Your task to perform on an android device: Add "corsair k70" to the cart on amazon.com Image 0: 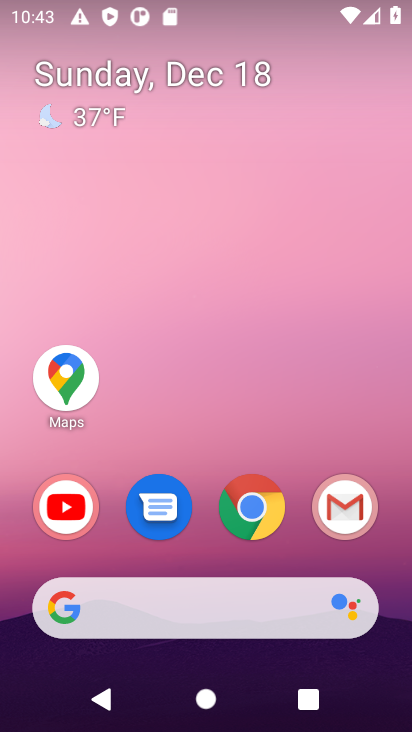
Step 0: click (250, 521)
Your task to perform on an android device: Add "corsair k70" to the cart on amazon.com Image 1: 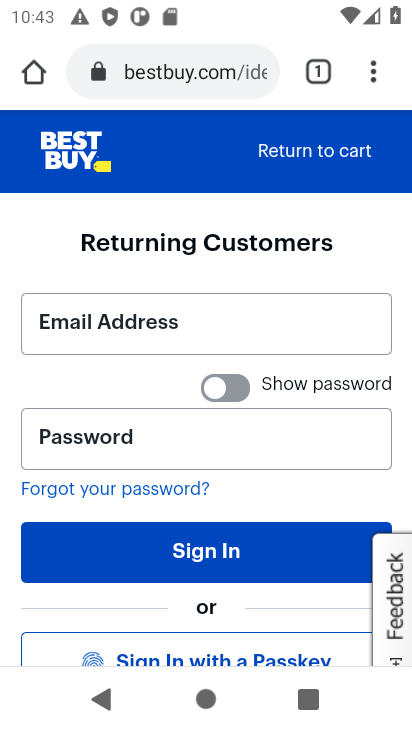
Step 1: click (165, 72)
Your task to perform on an android device: Add "corsair k70" to the cart on amazon.com Image 2: 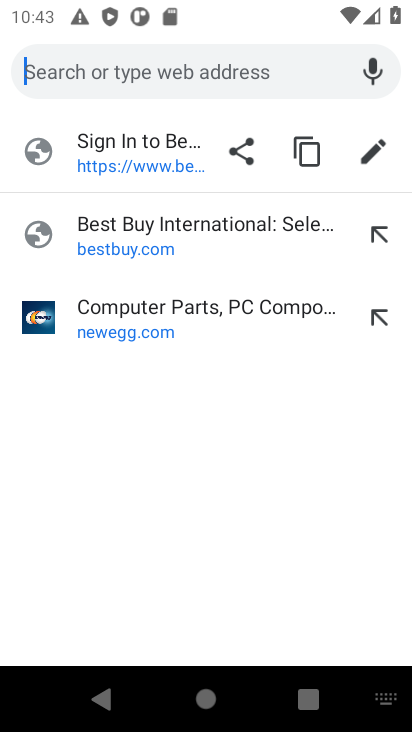
Step 2: type "amazon.com "
Your task to perform on an android device: Add "corsair k70" to the cart on amazon.com Image 3: 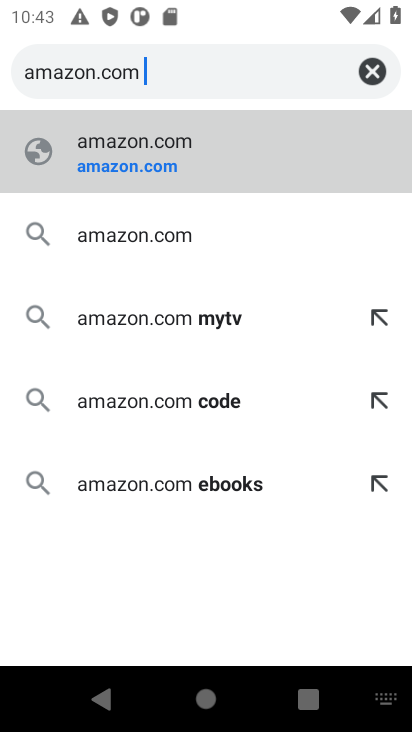
Step 3: click (131, 173)
Your task to perform on an android device: Add "corsair k70" to the cart on amazon.com Image 4: 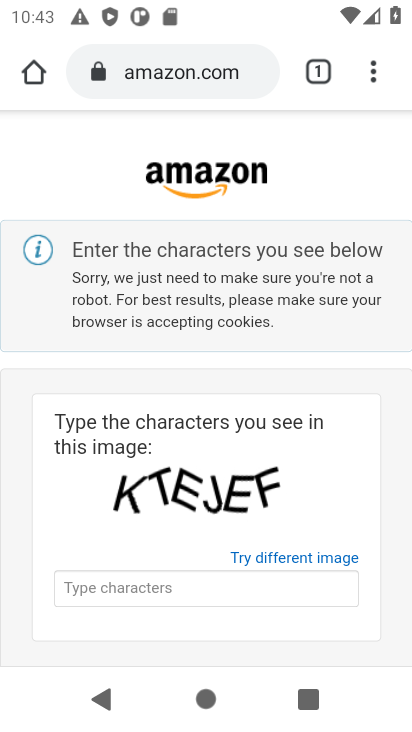
Step 4: click (130, 588)
Your task to perform on an android device: Add "corsair k70" to the cart on amazon.com Image 5: 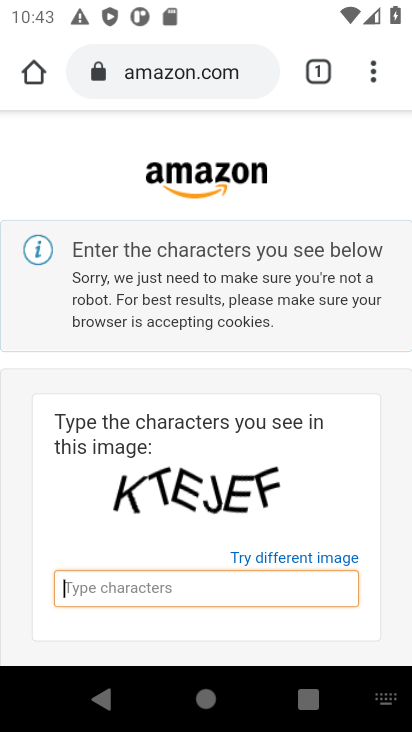
Step 5: type "KTEJEF"
Your task to perform on an android device: Add "corsair k70" to the cart on amazon.com Image 6: 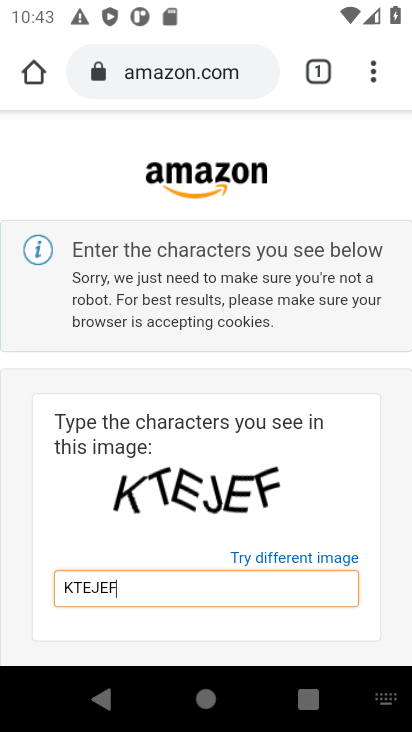
Step 6: drag from (219, 584) to (228, 322)
Your task to perform on an android device: Add "corsair k70" to the cart on amazon.com Image 7: 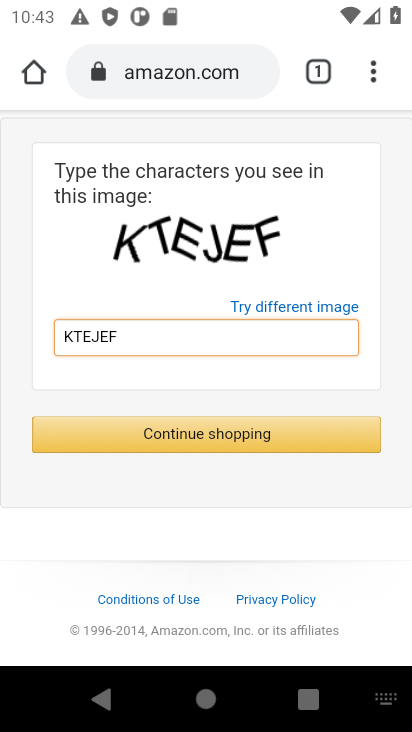
Step 7: click (207, 440)
Your task to perform on an android device: Add "corsair k70" to the cart on amazon.com Image 8: 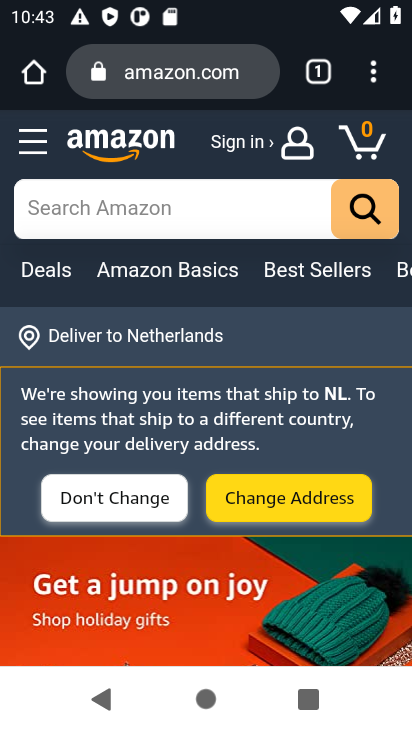
Step 8: click (71, 213)
Your task to perform on an android device: Add "corsair k70" to the cart on amazon.com Image 9: 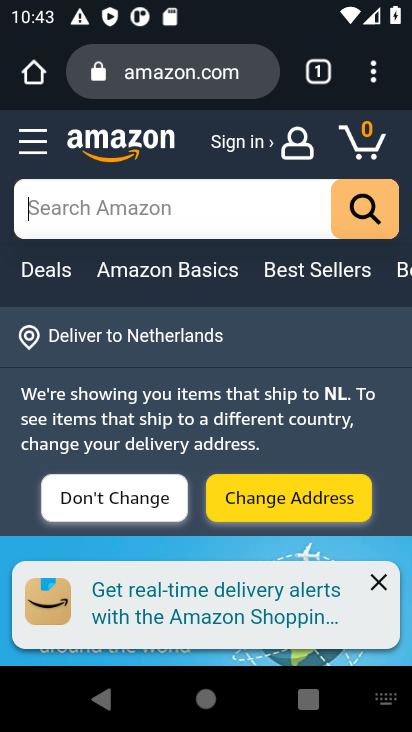
Step 9: type "corsair k70"
Your task to perform on an android device: Add "corsair k70" to the cart on amazon.com Image 10: 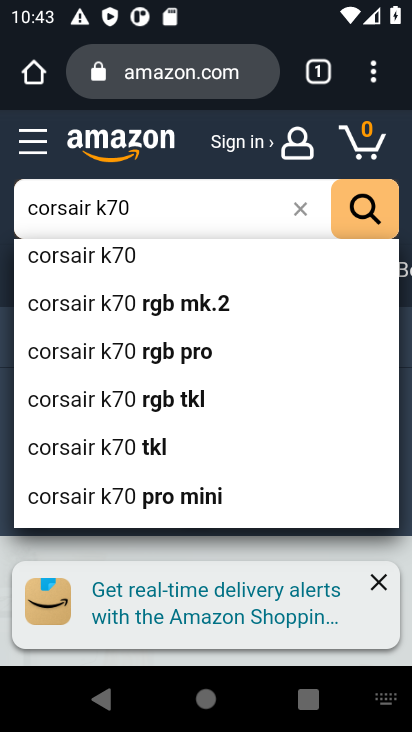
Step 10: click (78, 261)
Your task to perform on an android device: Add "corsair k70" to the cart on amazon.com Image 11: 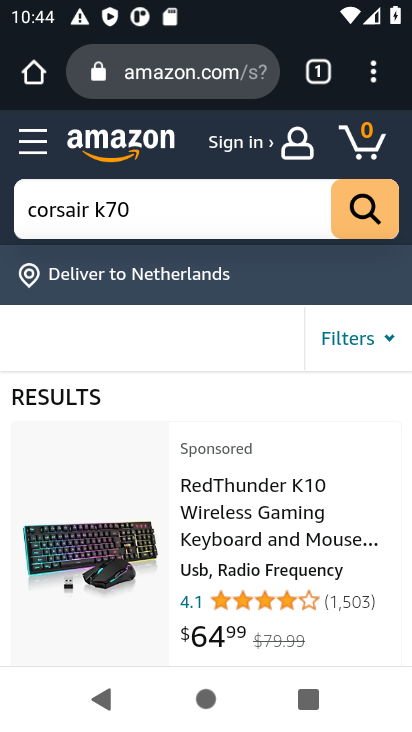
Step 11: drag from (206, 515) to (235, 367)
Your task to perform on an android device: Add "corsair k70" to the cart on amazon.com Image 12: 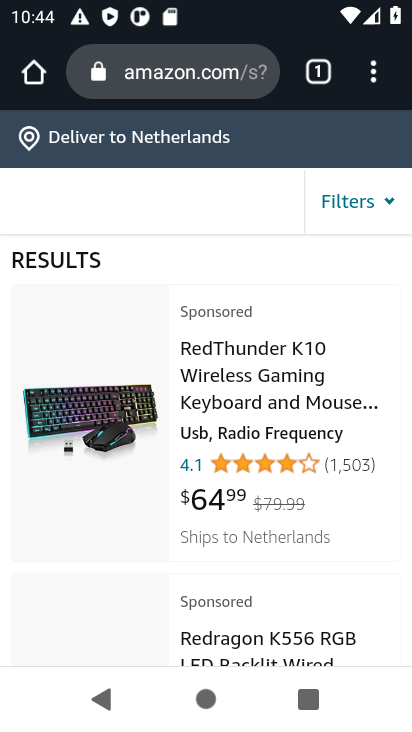
Step 12: drag from (184, 538) to (200, 293)
Your task to perform on an android device: Add "corsair k70" to the cart on amazon.com Image 13: 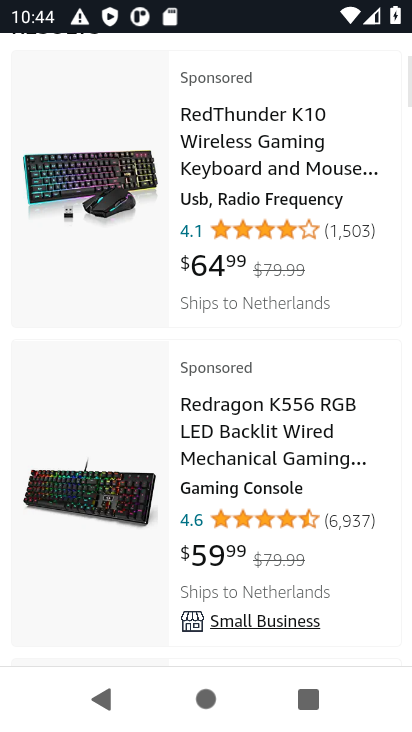
Step 13: drag from (190, 544) to (190, 258)
Your task to perform on an android device: Add "corsair k70" to the cart on amazon.com Image 14: 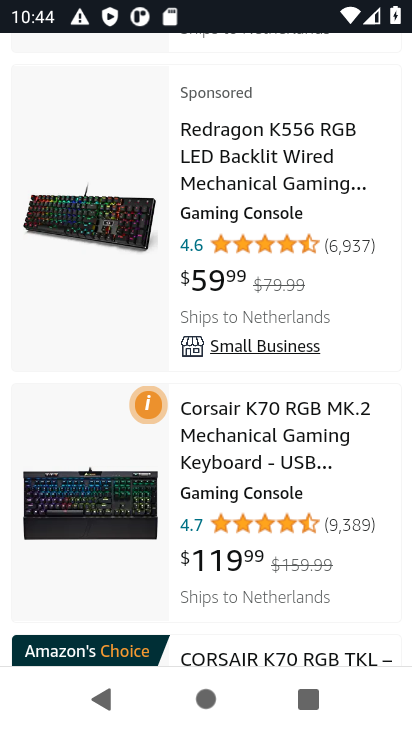
Step 14: drag from (164, 538) to (177, 337)
Your task to perform on an android device: Add "corsair k70" to the cart on amazon.com Image 15: 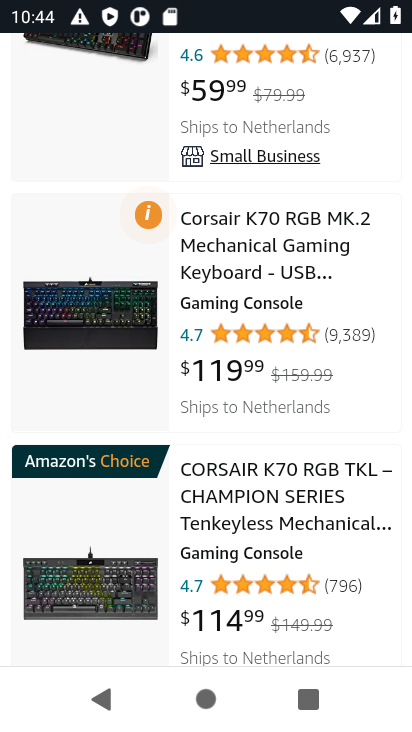
Step 15: click (220, 279)
Your task to perform on an android device: Add "corsair k70" to the cart on amazon.com Image 16: 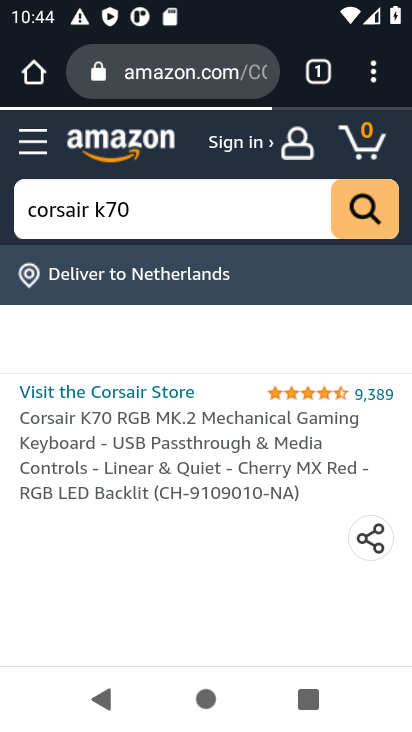
Step 16: drag from (205, 495) to (215, 262)
Your task to perform on an android device: Add "corsair k70" to the cart on amazon.com Image 17: 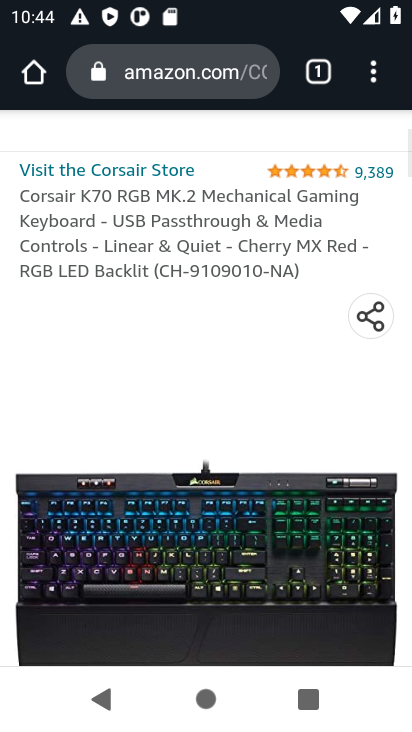
Step 17: drag from (211, 555) to (212, 203)
Your task to perform on an android device: Add "corsair k70" to the cart on amazon.com Image 18: 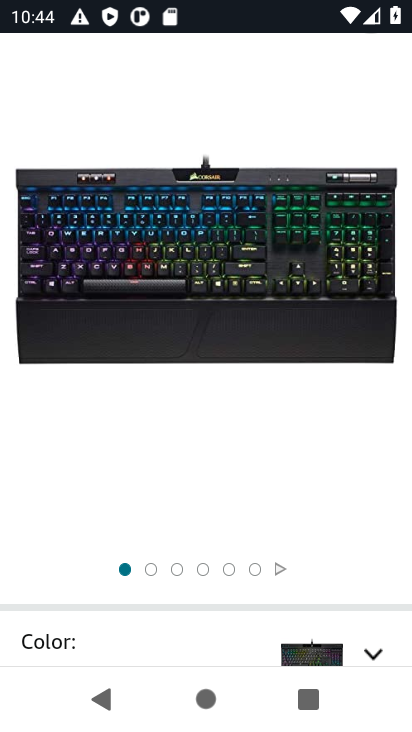
Step 18: drag from (184, 450) to (184, 235)
Your task to perform on an android device: Add "corsair k70" to the cart on amazon.com Image 19: 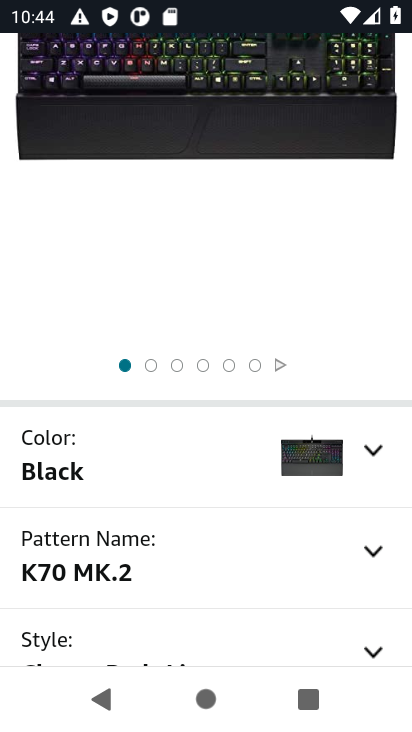
Step 19: drag from (182, 470) to (173, 187)
Your task to perform on an android device: Add "corsair k70" to the cart on amazon.com Image 20: 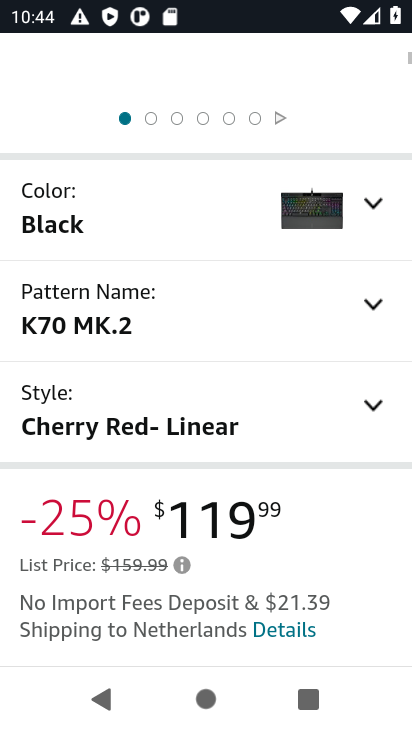
Step 20: drag from (166, 488) to (156, 174)
Your task to perform on an android device: Add "corsair k70" to the cart on amazon.com Image 21: 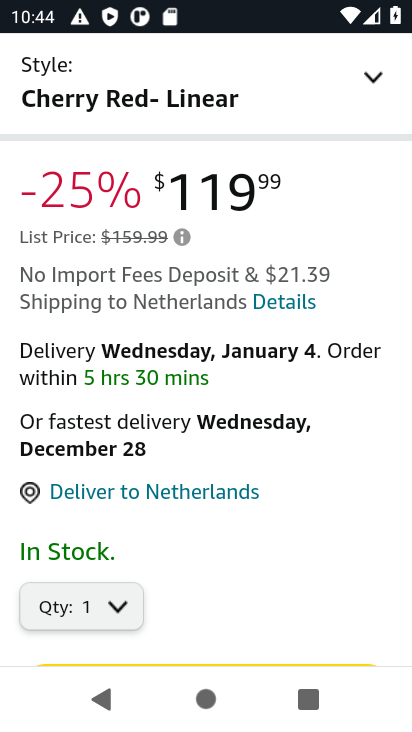
Step 21: drag from (136, 490) to (140, 209)
Your task to perform on an android device: Add "corsair k70" to the cart on amazon.com Image 22: 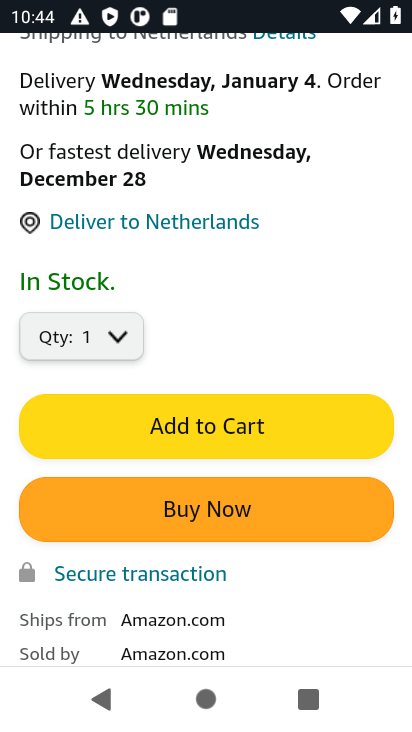
Step 22: click (169, 419)
Your task to perform on an android device: Add "corsair k70" to the cart on amazon.com Image 23: 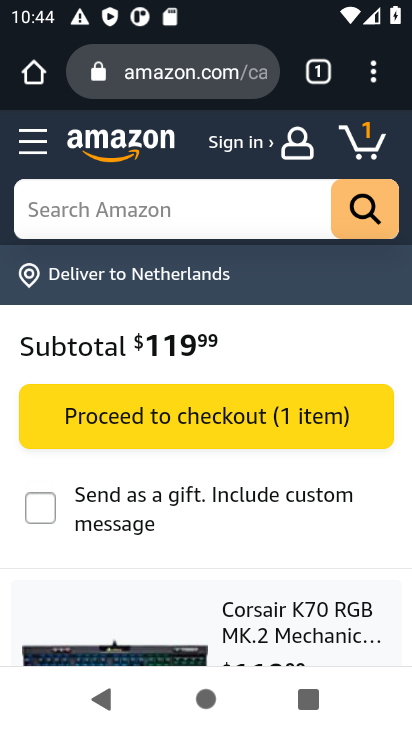
Step 23: task complete